Your task to perform on an android device: delete the emails in spam in the gmail app Image 0: 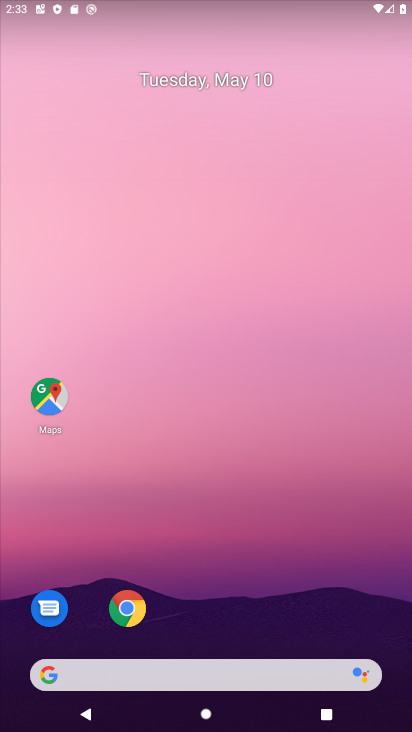
Step 0: drag from (214, 627) to (361, 55)
Your task to perform on an android device: delete the emails in spam in the gmail app Image 1: 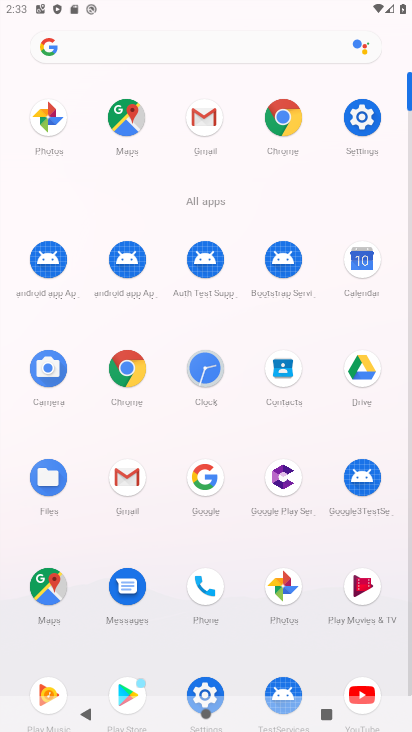
Step 1: click (139, 489)
Your task to perform on an android device: delete the emails in spam in the gmail app Image 2: 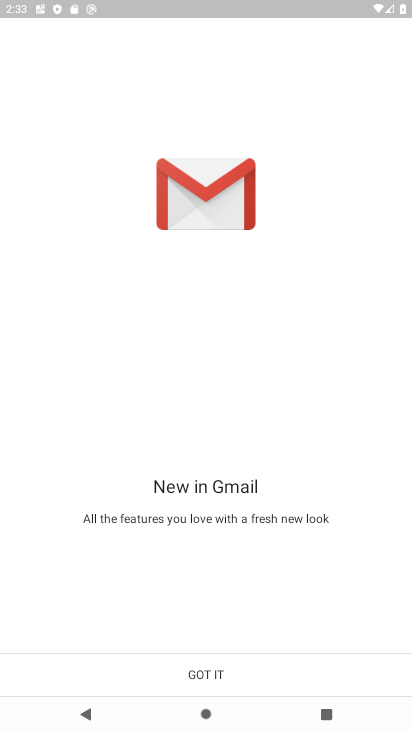
Step 2: click (209, 680)
Your task to perform on an android device: delete the emails in spam in the gmail app Image 3: 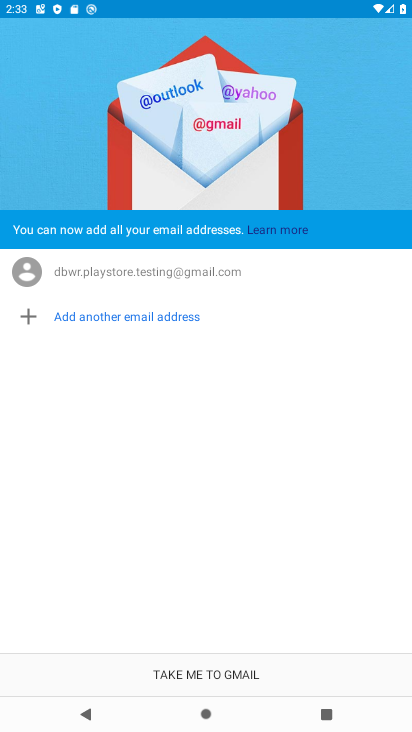
Step 3: click (214, 674)
Your task to perform on an android device: delete the emails in spam in the gmail app Image 4: 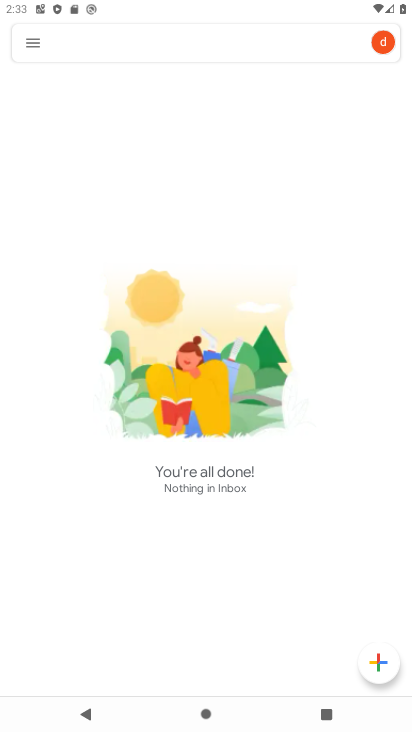
Step 4: click (33, 28)
Your task to perform on an android device: delete the emails in spam in the gmail app Image 5: 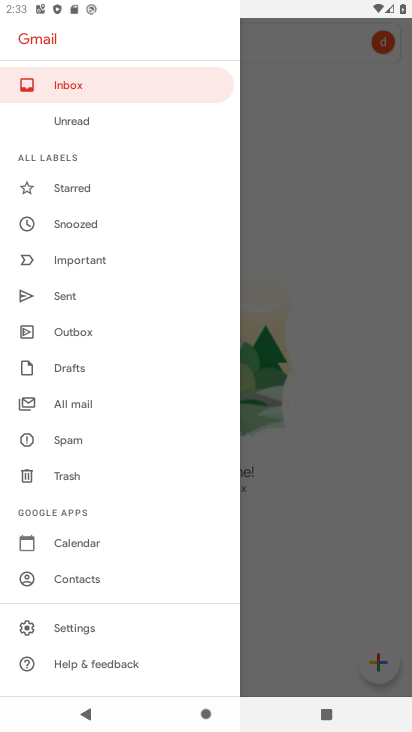
Step 5: click (88, 445)
Your task to perform on an android device: delete the emails in spam in the gmail app Image 6: 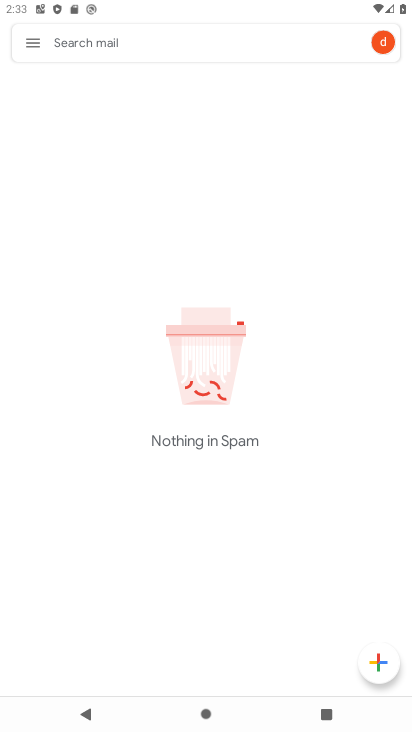
Step 6: task complete